Your task to perform on an android device: Open the map Image 0: 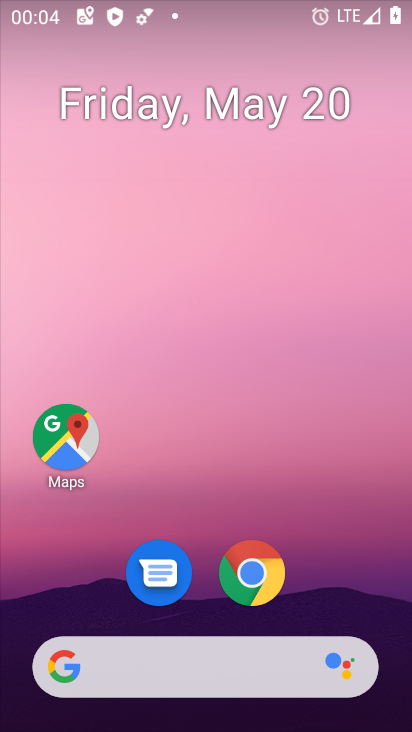
Step 0: click (61, 441)
Your task to perform on an android device: Open the map Image 1: 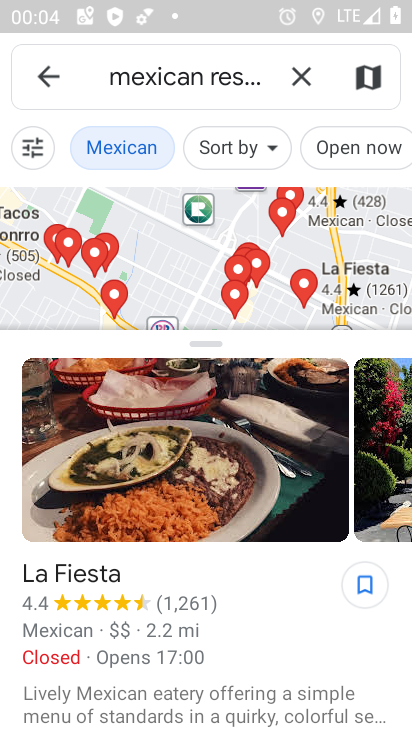
Step 1: task complete